Your task to perform on an android device: open wifi settings Image 0: 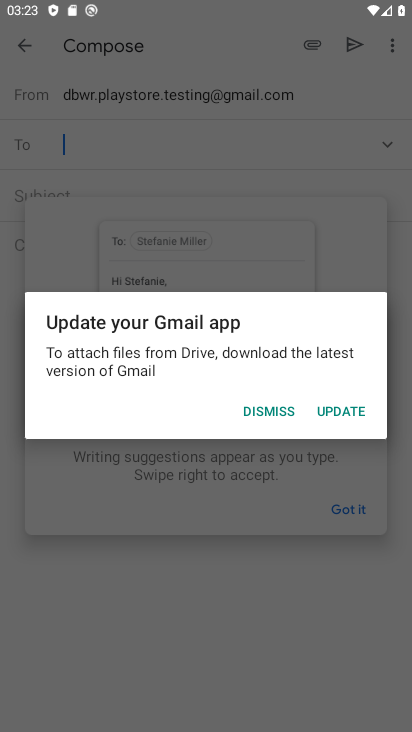
Step 0: press home button
Your task to perform on an android device: open wifi settings Image 1: 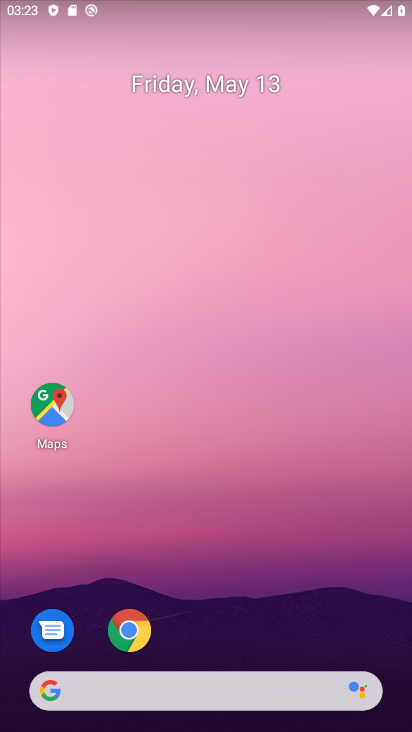
Step 1: drag from (220, 660) to (151, 23)
Your task to perform on an android device: open wifi settings Image 2: 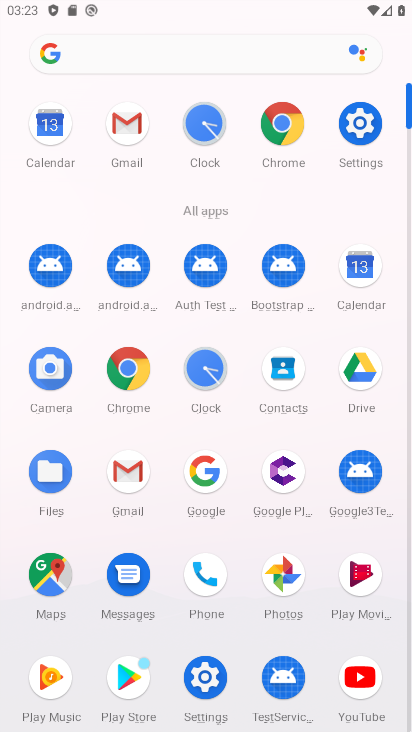
Step 2: click (369, 127)
Your task to perform on an android device: open wifi settings Image 3: 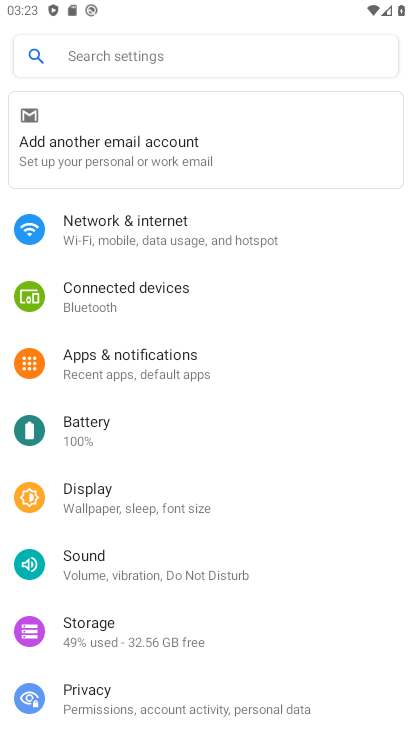
Step 3: click (128, 236)
Your task to perform on an android device: open wifi settings Image 4: 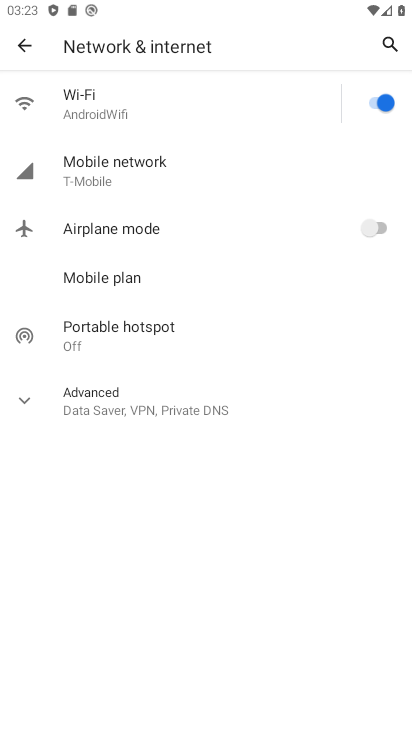
Step 4: click (101, 115)
Your task to perform on an android device: open wifi settings Image 5: 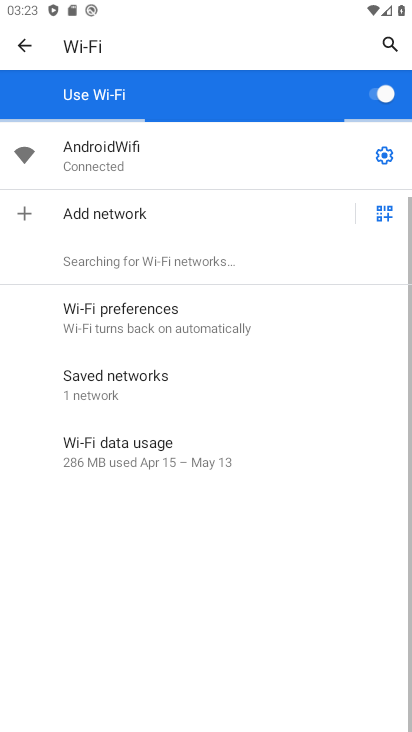
Step 5: task complete